Your task to perform on an android device: move a message to another label in the gmail app Image 0: 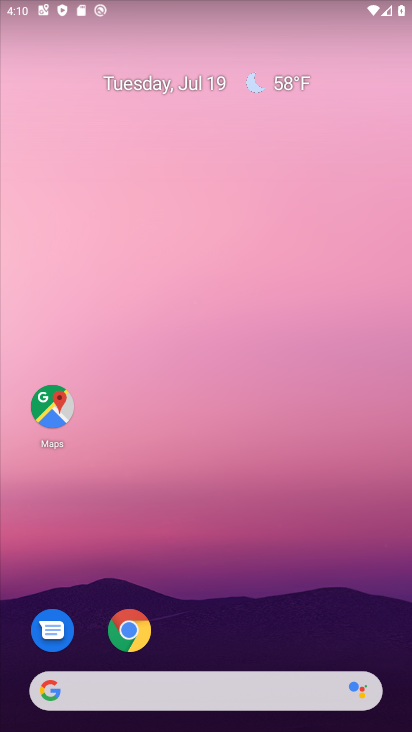
Step 0: drag from (220, 646) to (250, 243)
Your task to perform on an android device: move a message to another label in the gmail app Image 1: 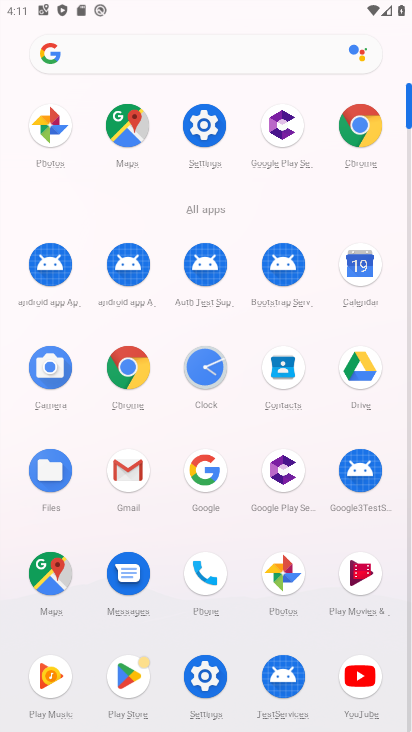
Step 1: click (121, 468)
Your task to perform on an android device: move a message to another label in the gmail app Image 2: 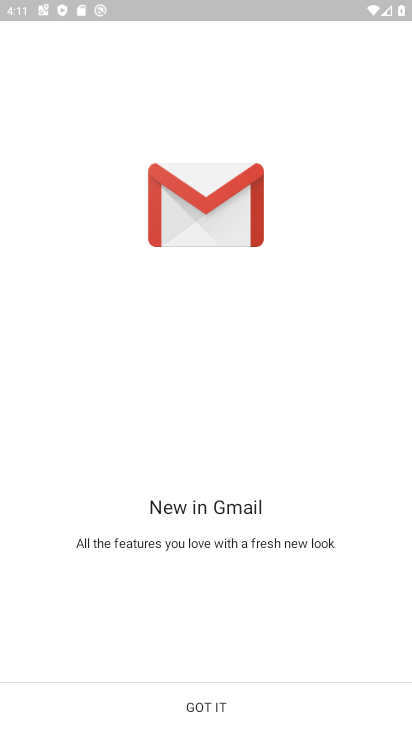
Step 2: click (262, 719)
Your task to perform on an android device: move a message to another label in the gmail app Image 3: 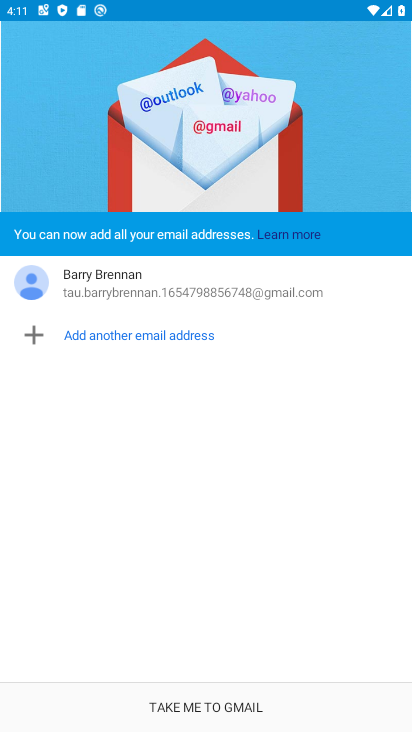
Step 3: click (261, 722)
Your task to perform on an android device: move a message to another label in the gmail app Image 4: 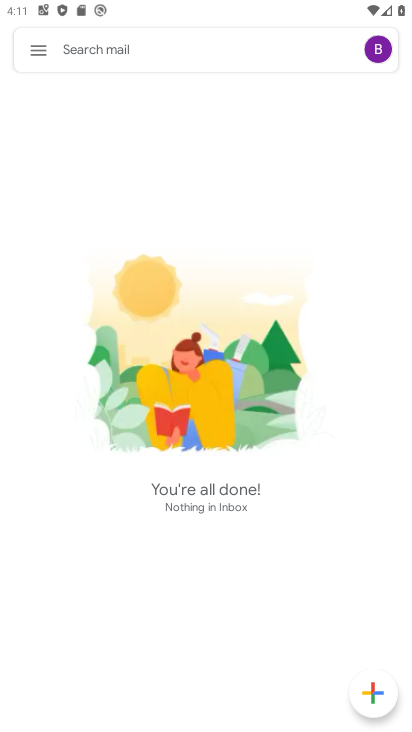
Step 4: click (43, 49)
Your task to perform on an android device: move a message to another label in the gmail app Image 5: 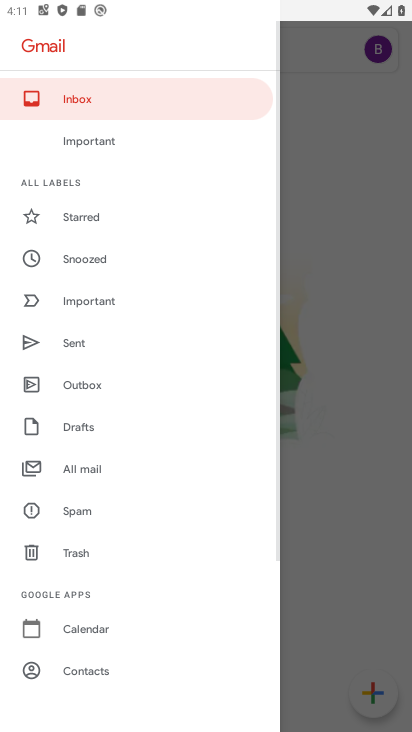
Step 5: click (112, 474)
Your task to perform on an android device: move a message to another label in the gmail app Image 6: 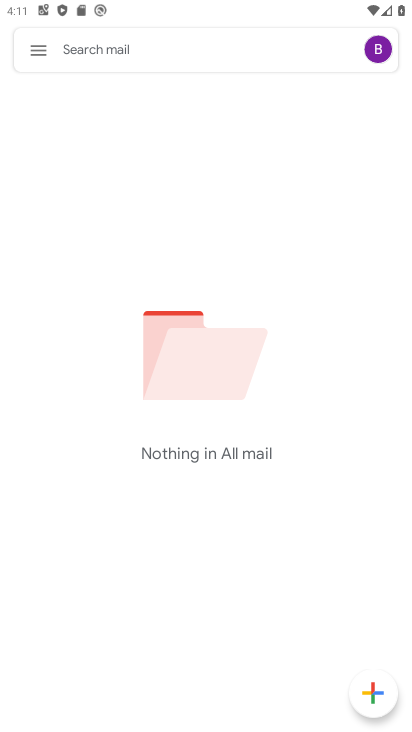
Step 6: task complete